Your task to perform on an android device: empty trash in google photos Image 0: 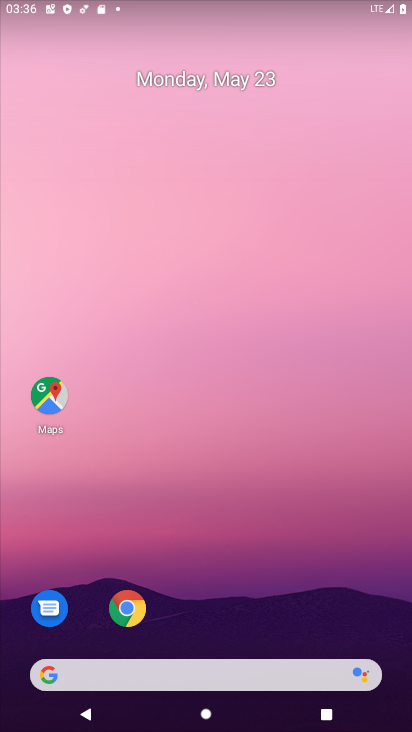
Step 0: drag from (283, 591) to (262, 110)
Your task to perform on an android device: empty trash in google photos Image 1: 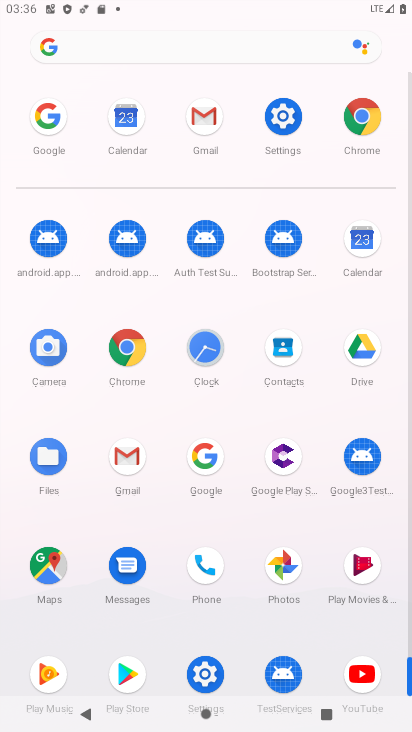
Step 1: click (283, 561)
Your task to perform on an android device: empty trash in google photos Image 2: 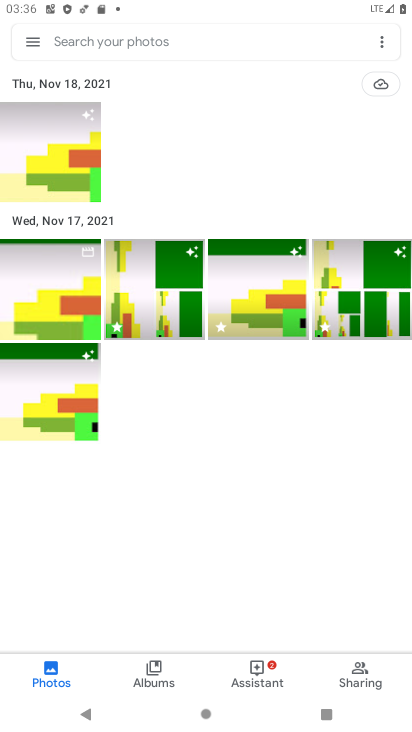
Step 2: click (33, 42)
Your task to perform on an android device: empty trash in google photos Image 3: 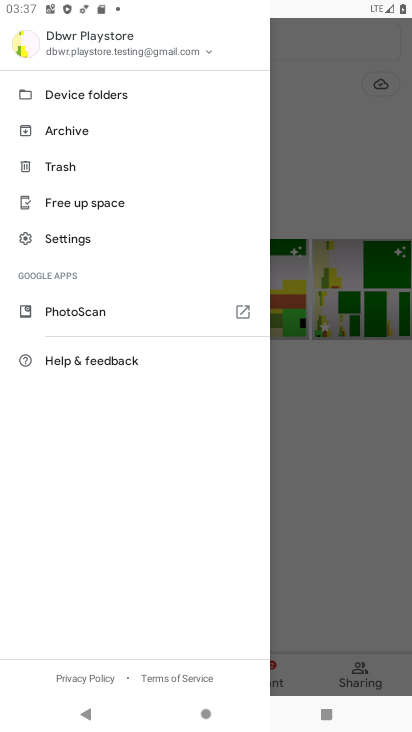
Step 3: click (68, 167)
Your task to perform on an android device: empty trash in google photos Image 4: 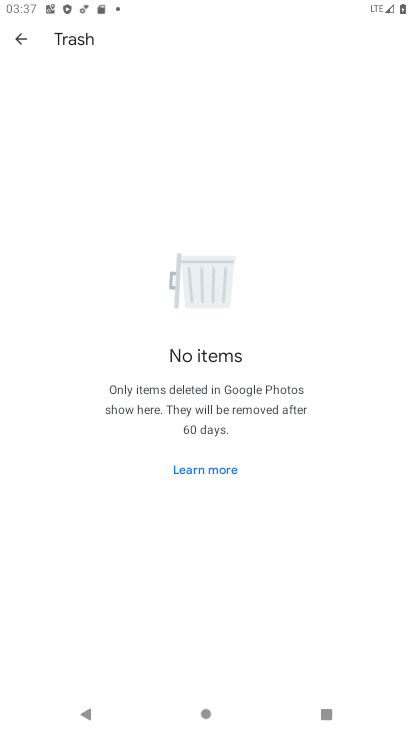
Step 4: task complete